Your task to perform on an android device: toggle location history Image 0: 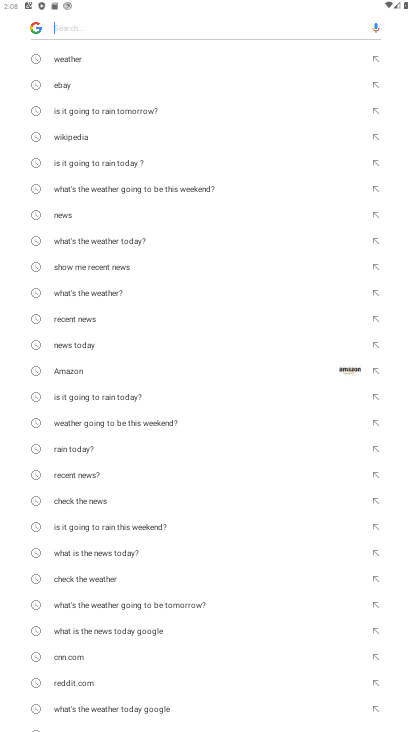
Step 0: press home button
Your task to perform on an android device: toggle location history Image 1: 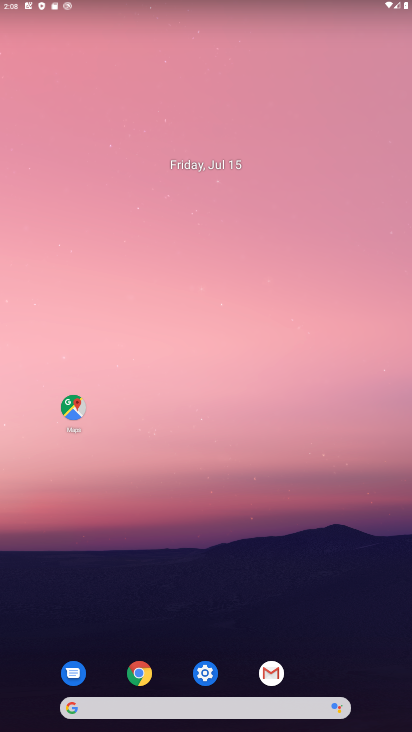
Step 1: click (201, 667)
Your task to perform on an android device: toggle location history Image 2: 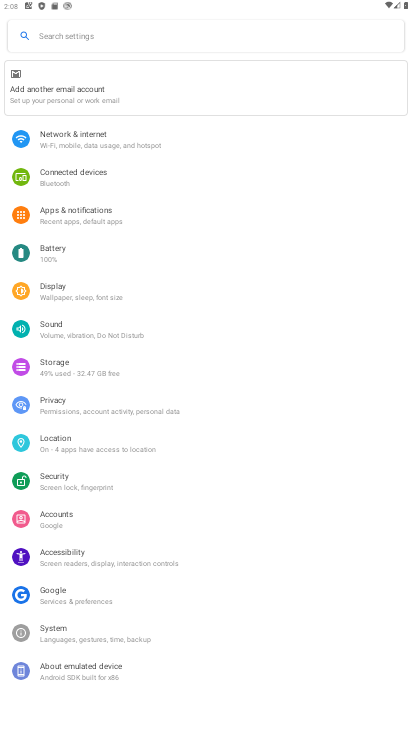
Step 2: click (71, 446)
Your task to perform on an android device: toggle location history Image 3: 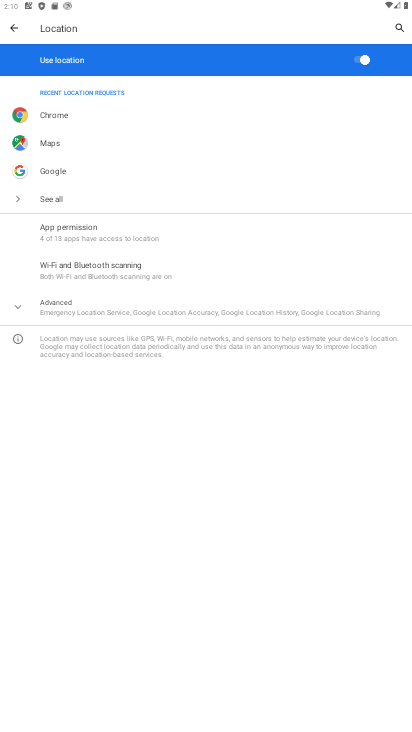
Step 3: task complete